Your task to perform on an android device: Is it going to rain today? Image 0: 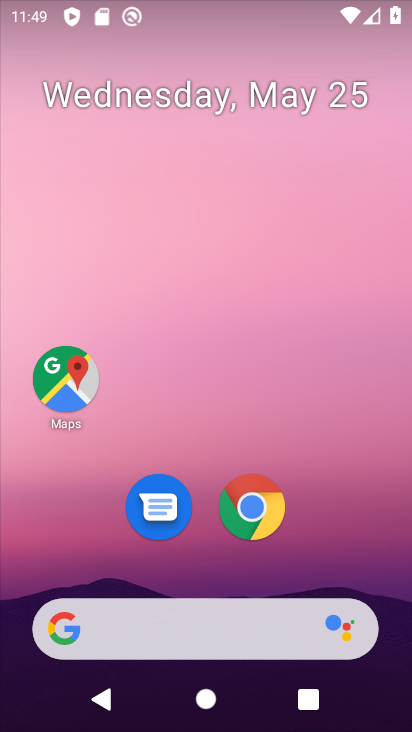
Step 0: drag from (219, 578) to (219, 239)
Your task to perform on an android device: Is it going to rain today? Image 1: 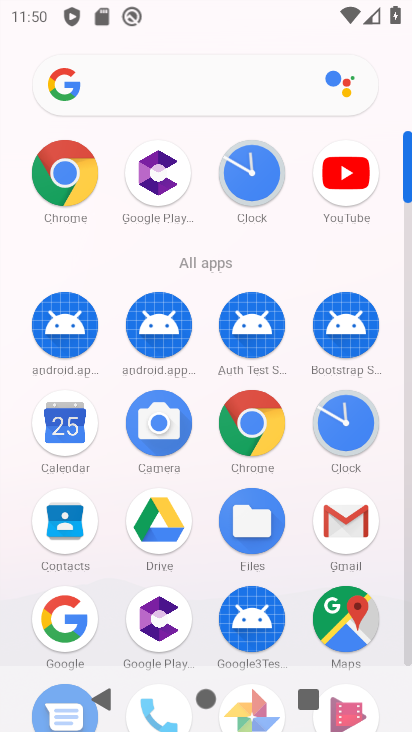
Step 1: drag from (219, 483) to (236, 306)
Your task to perform on an android device: Is it going to rain today? Image 2: 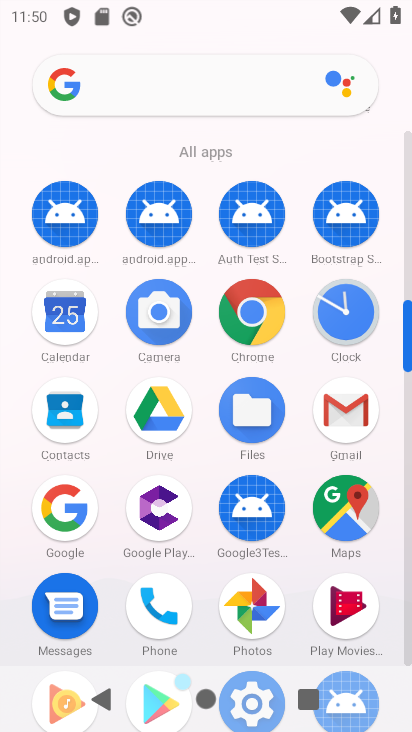
Step 2: click (44, 500)
Your task to perform on an android device: Is it going to rain today? Image 3: 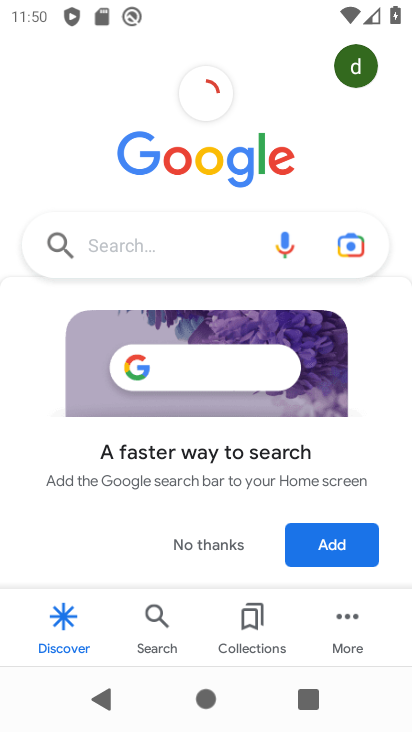
Step 3: click (148, 251)
Your task to perform on an android device: Is it going to rain today? Image 4: 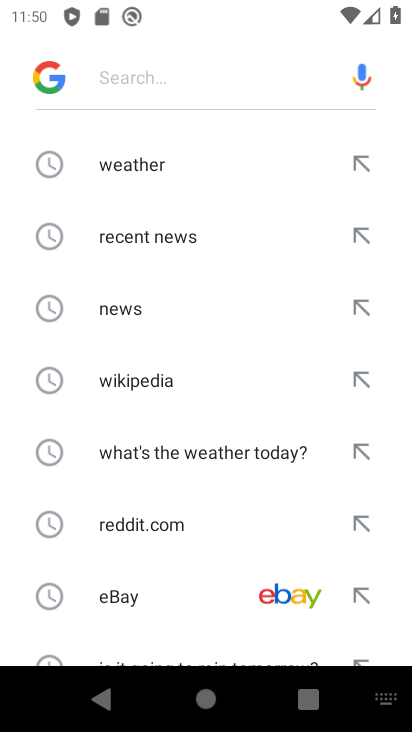
Step 4: click (101, 165)
Your task to perform on an android device: Is it going to rain today? Image 5: 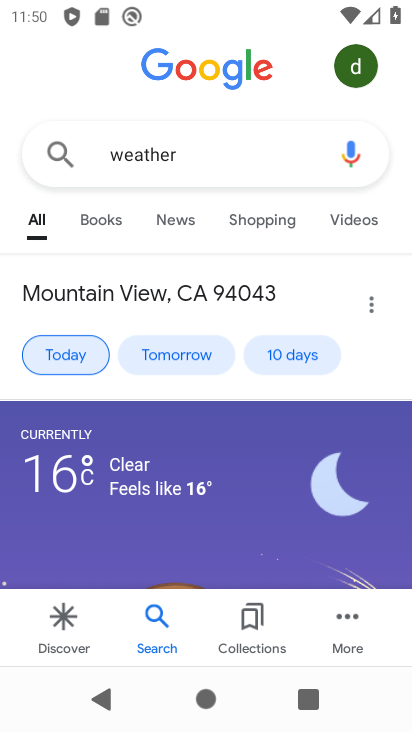
Step 5: task complete